Your task to perform on an android device: turn off priority inbox in the gmail app Image 0: 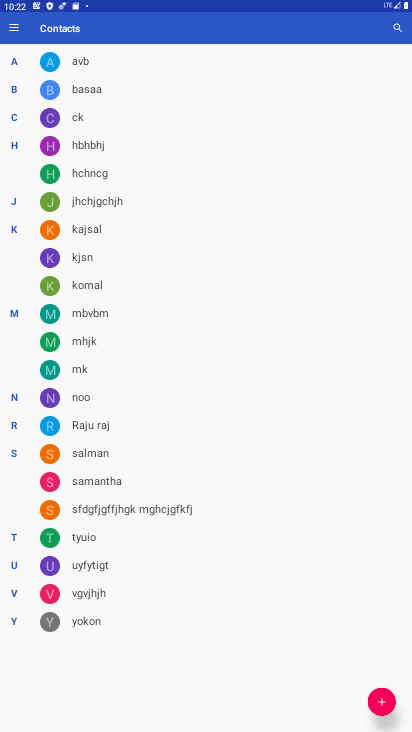
Step 0: press home button
Your task to perform on an android device: turn off priority inbox in the gmail app Image 1: 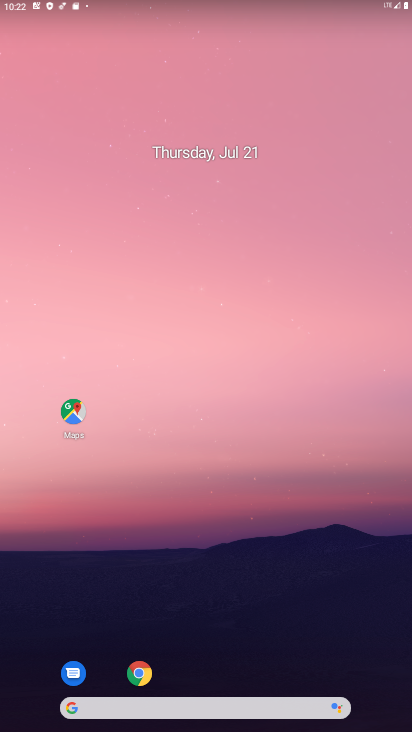
Step 1: drag from (225, 640) to (197, 199)
Your task to perform on an android device: turn off priority inbox in the gmail app Image 2: 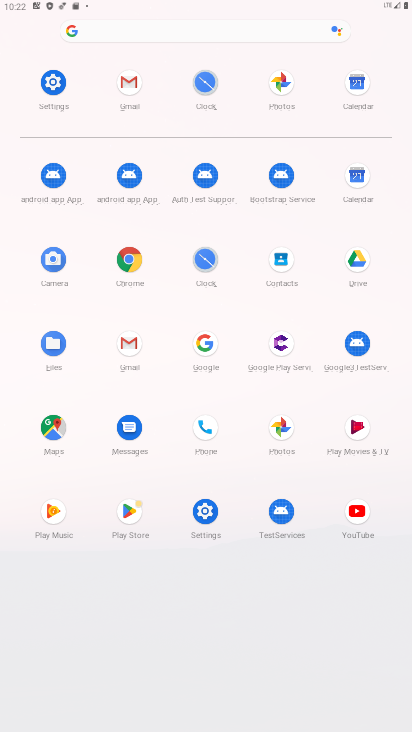
Step 2: click (124, 108)
Your task to perform on an android device: turn off priority inbox in the gmail app Image 3: 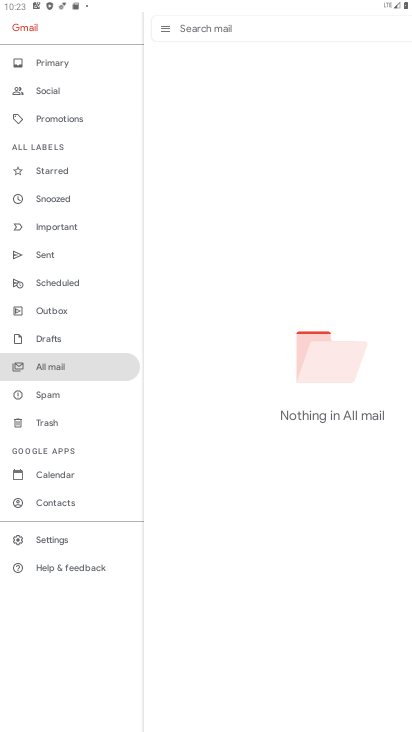
Step 3: click (91, 543)
Your task to perform on an android device: turn off priority inbox in the gmail app Image 4: 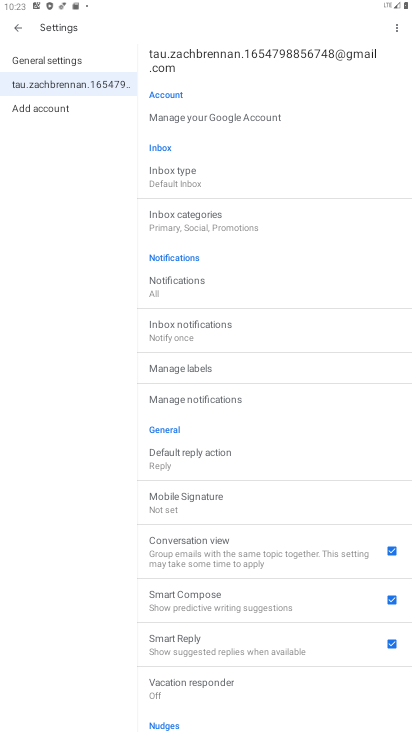
Step 4: click (229, 191)
Your task to perform on an android device: turn off priority inbox in the gmail app Image 5: 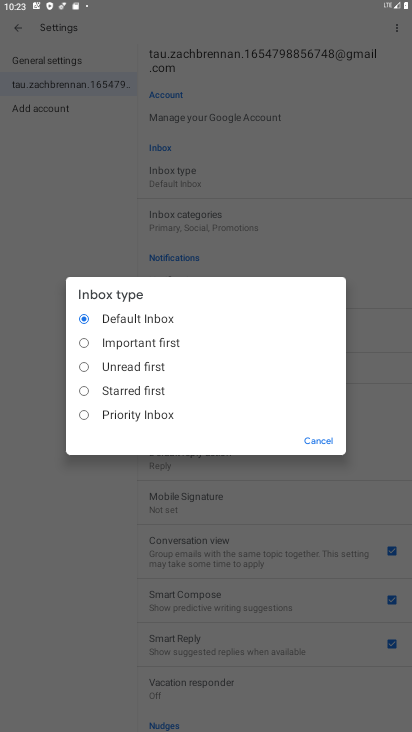
Step 5: task complete